Your task to perform on an android device: Open Wikipedia Image 0: 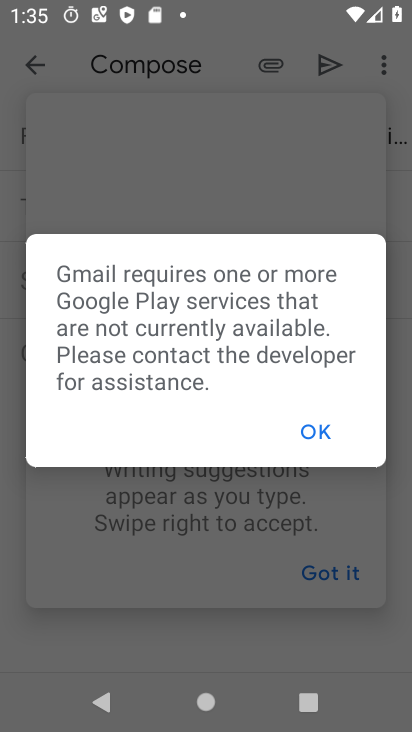
Step 0: press home button
Your task to perform on an android device: Open Wikipedia Image 1: 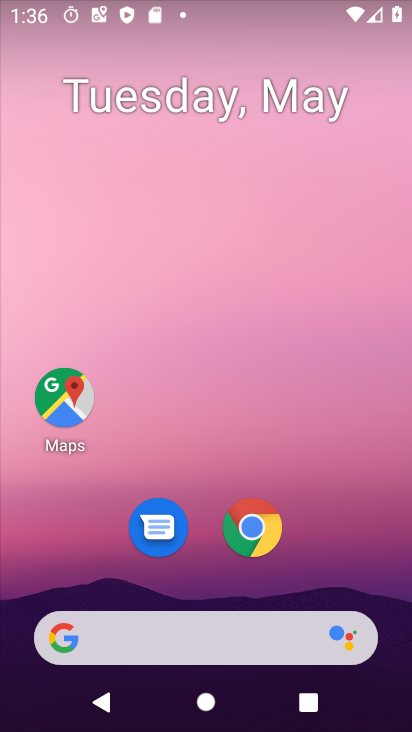
Step 1: drag from (269, 619) to (279, 260)
Your task to perform on an android device: Open Wikipedia Image 2: 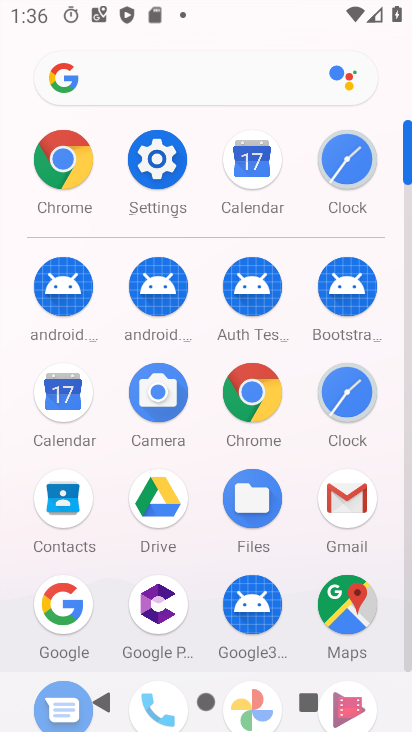
Step 2: click (74, 166)
Your task to perform on an android device: Open Wikipedia Image 3: 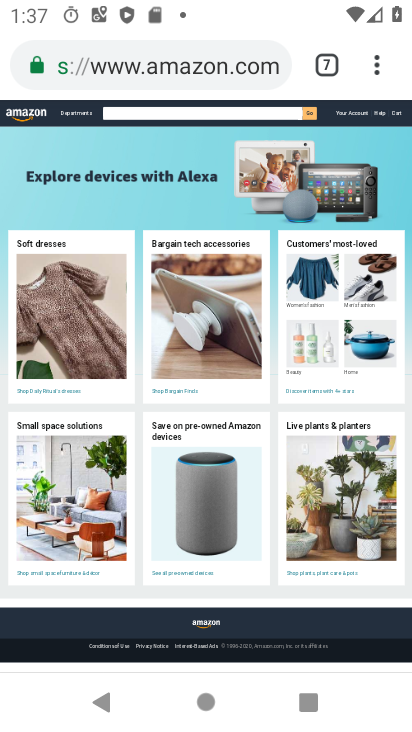
Step 3: click (333, 60)
Your task to perform on an android device: Open Wikipedia Image 4: 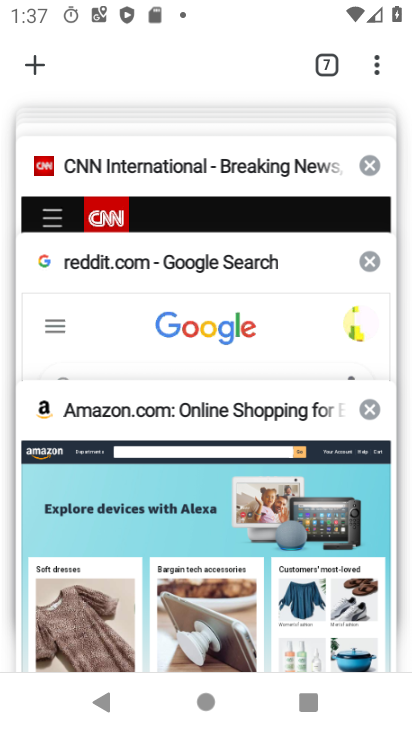
Step 4: click (27, 65)
Your task to perform on an android device: Open Wikipedia Image 5: 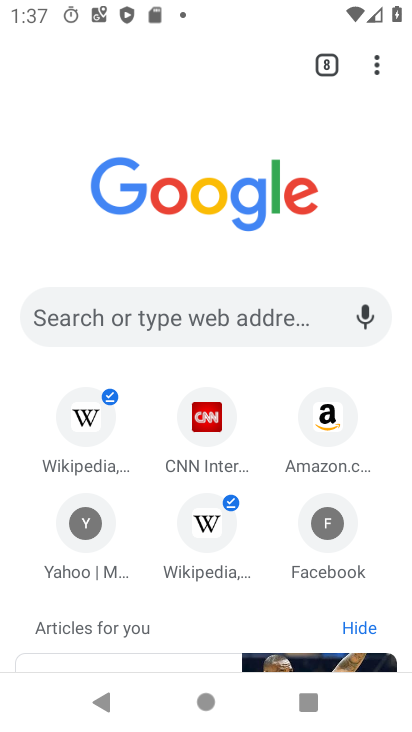
Step 5: click (84, 433)
Your task to perform on an android device: Open Wikipedia Image 6: 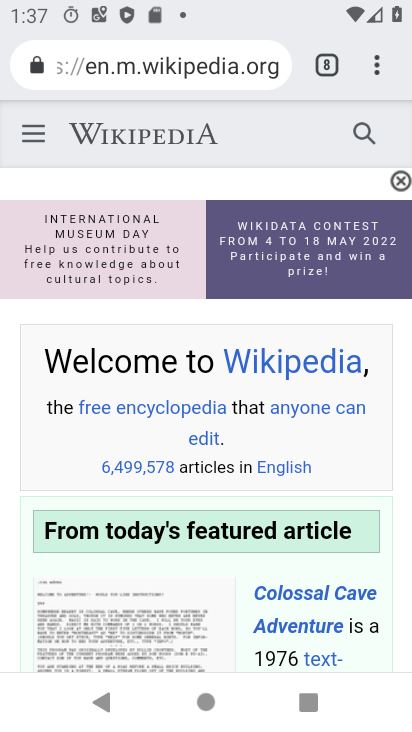
Step 6: task complete